Your task to perform on an android device: Open the phone app and click the voicemail tab. Image 0: 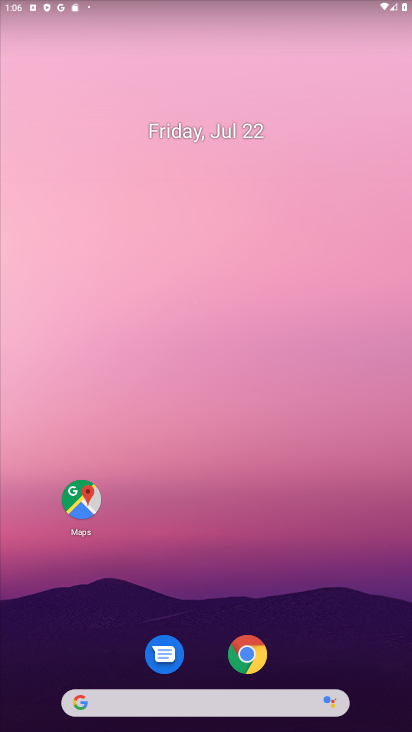
Step 0: drag from (269, 697) to (248, 153)
Your task to perform on an android device: Open the phone app and click the voicemail tab. Image 1: 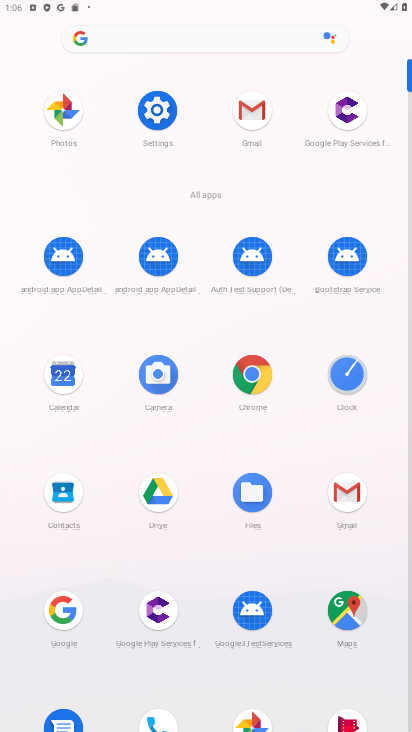
Step 1: drag from (189, 452) to (216, 179)
Your task to perform on an android device: Open the phone app and click the voicemail tab. Image 2: 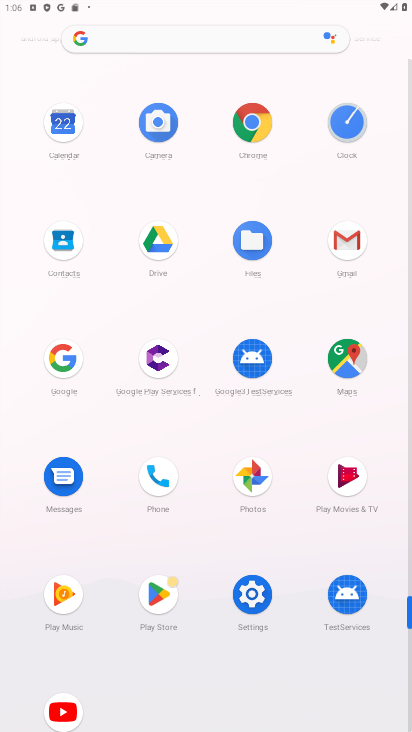
Step 2: click (153, 472)
Your task to perform on an android device: Open the phone app and click the voicemail tab. Image 3: 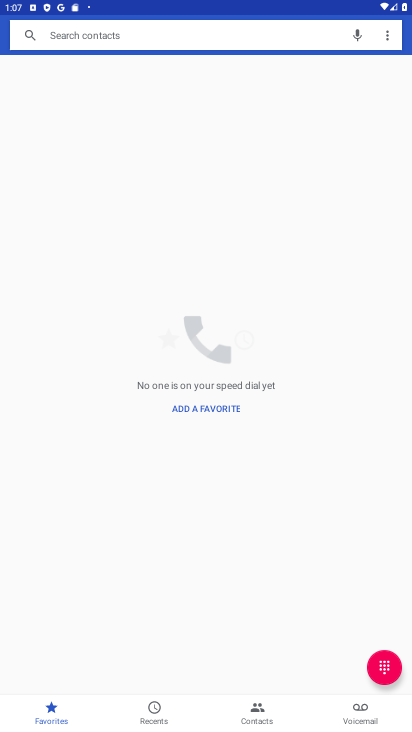
Step 3: click (363, 702)
Your task to perform on an android device: Open the phone app and click the voicemail tab. Image 4: 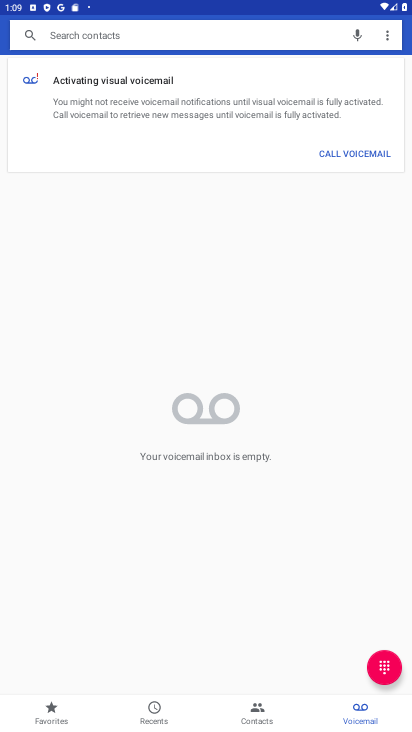
Step 4: task complete